Your task to perform on an android device: open app "Chime – Mobile Banking" (install if not already installed) and go to login screen Image 0: 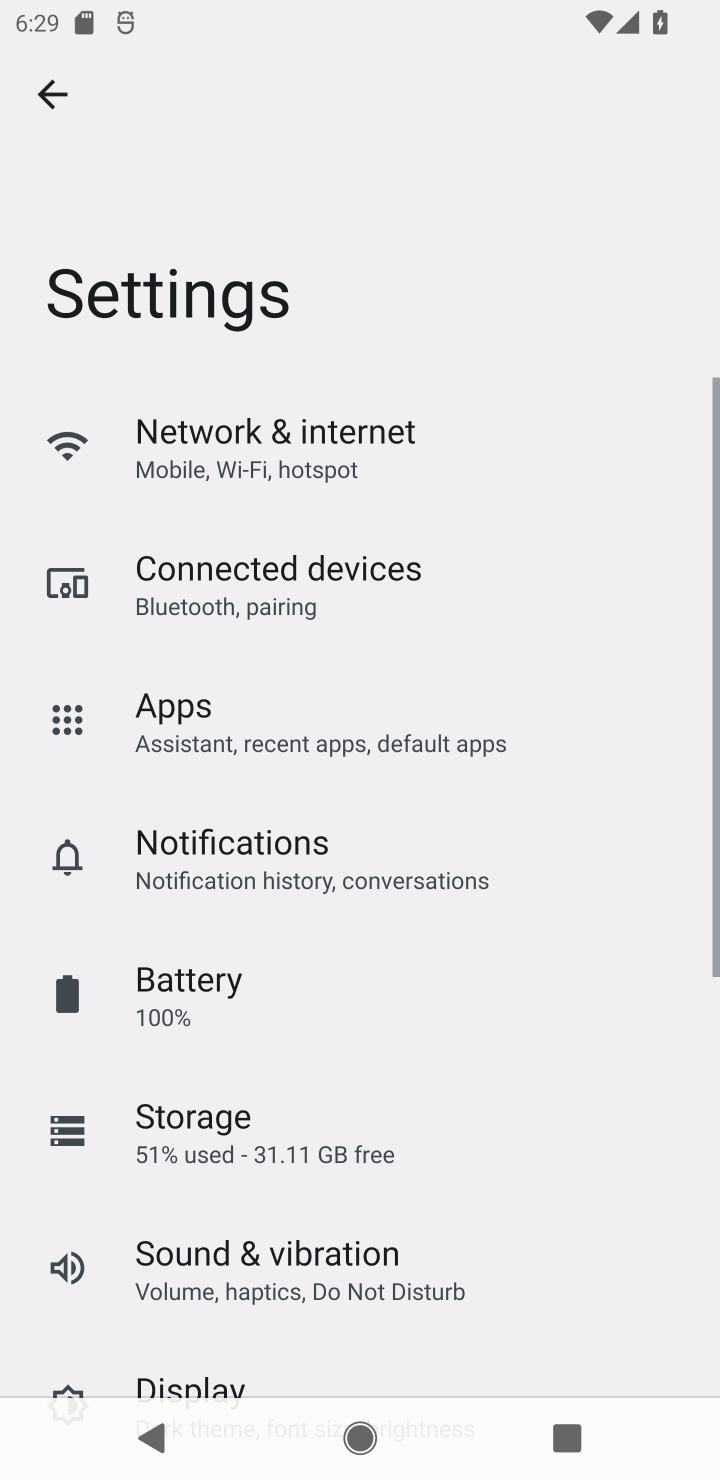
Step 0: press back button
Your task to perform on an android device: open app "Chime – Mobile Banking" (install if not already installed) and go to login screen Image 1: 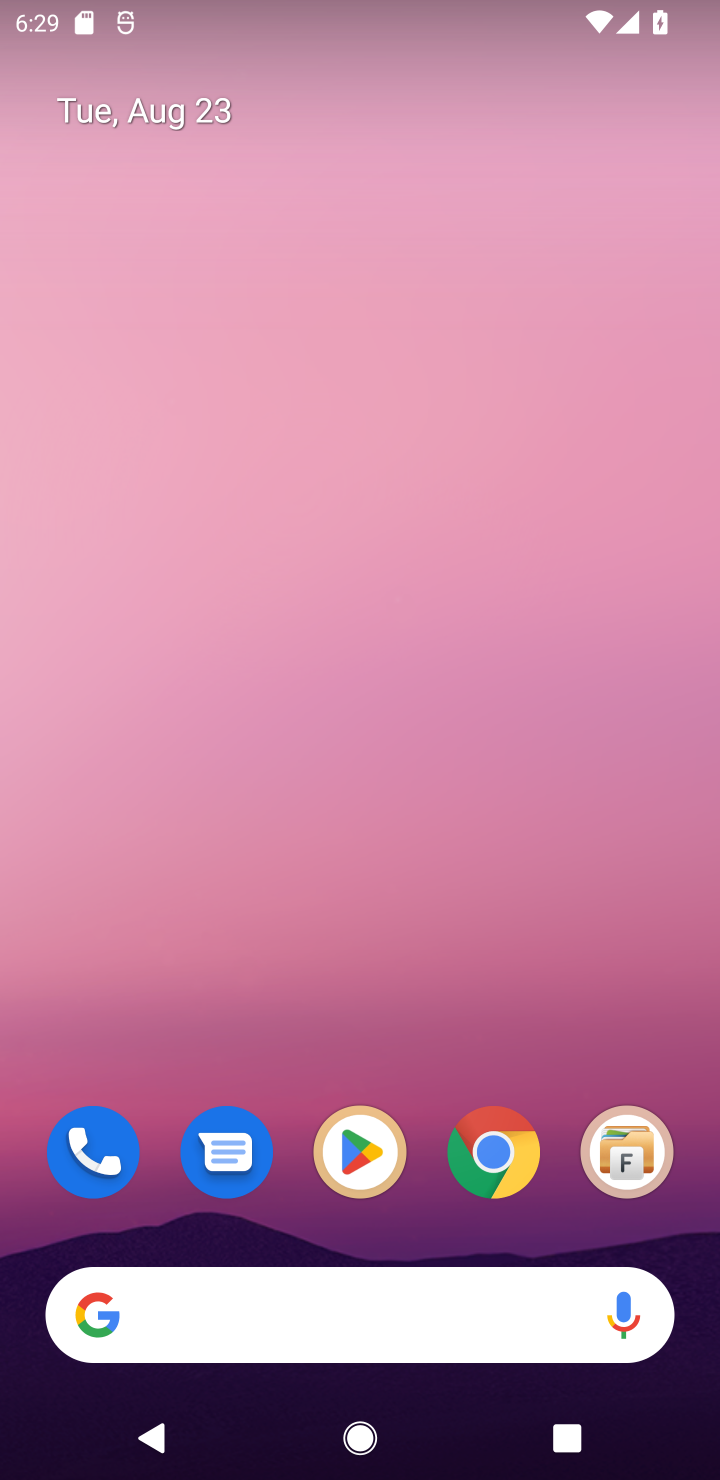
Step 1: click (367, 1147)
Your task to perform on an android device: open app "Chime – Mobile Banking" (install if not already installed) and go to login screen Image 2: 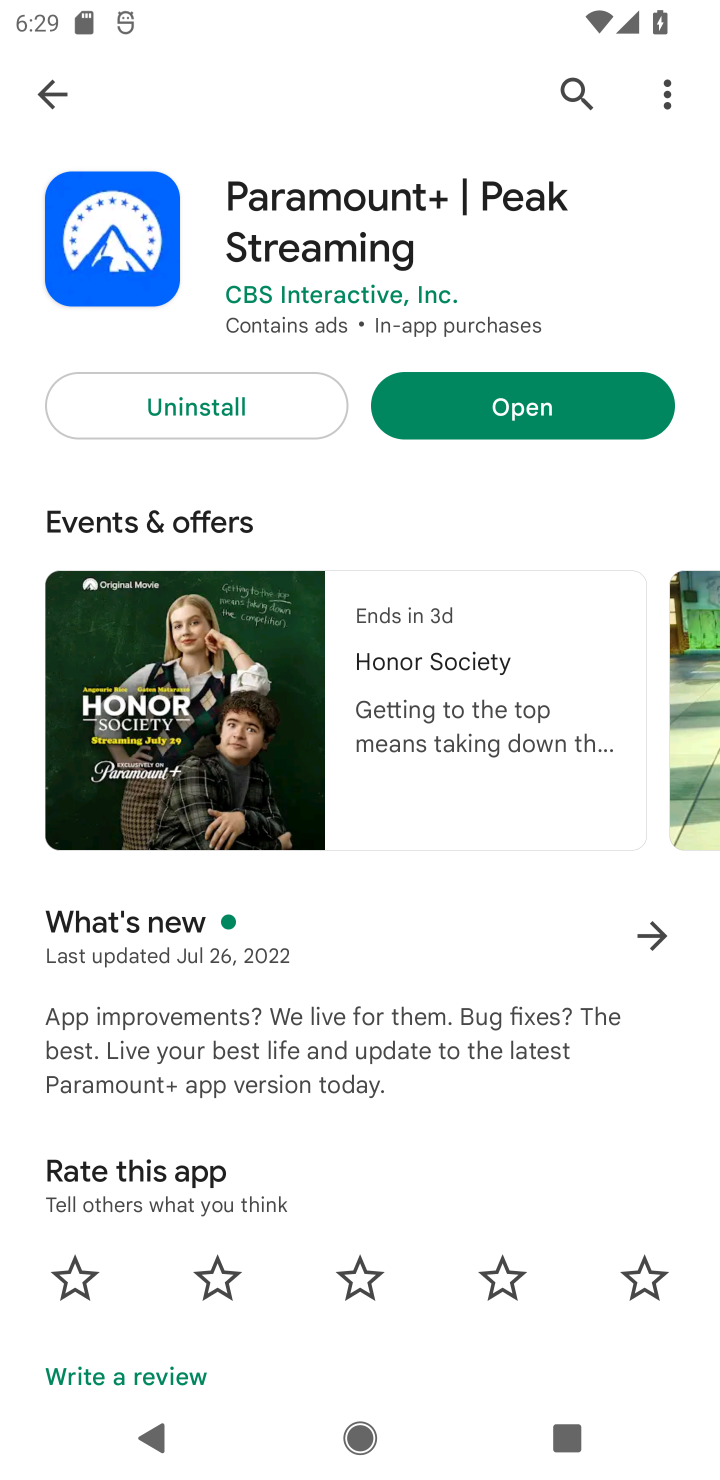
Step 2: click (580, 80)
Your task to perform on an android device: open app "Chime – Mobile Banking" (install if not already installed) and go to login screen Image 3: 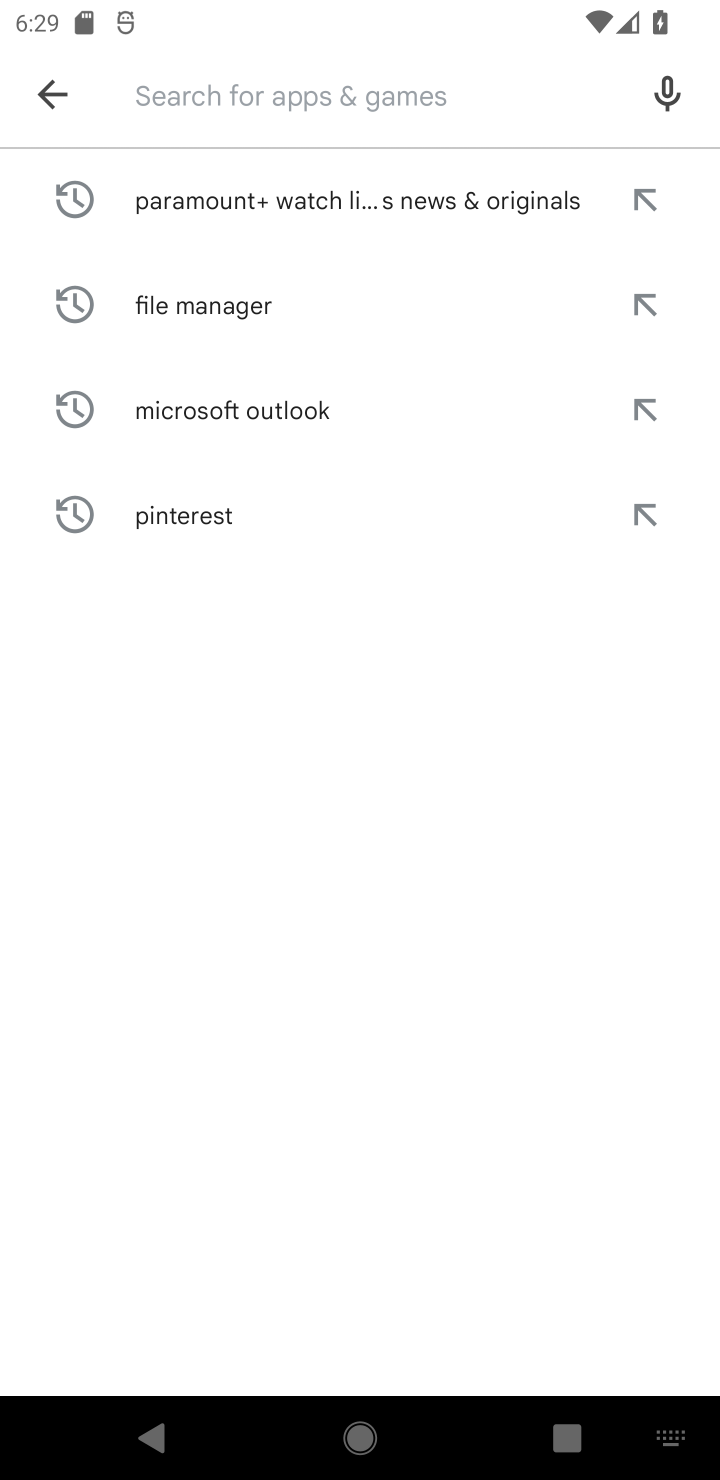
Step 3: click (296, 63)
Your task to perform on an android device: open app "Chime – Mobile Banking" (install if not already installed) and go to login screen Image 4: 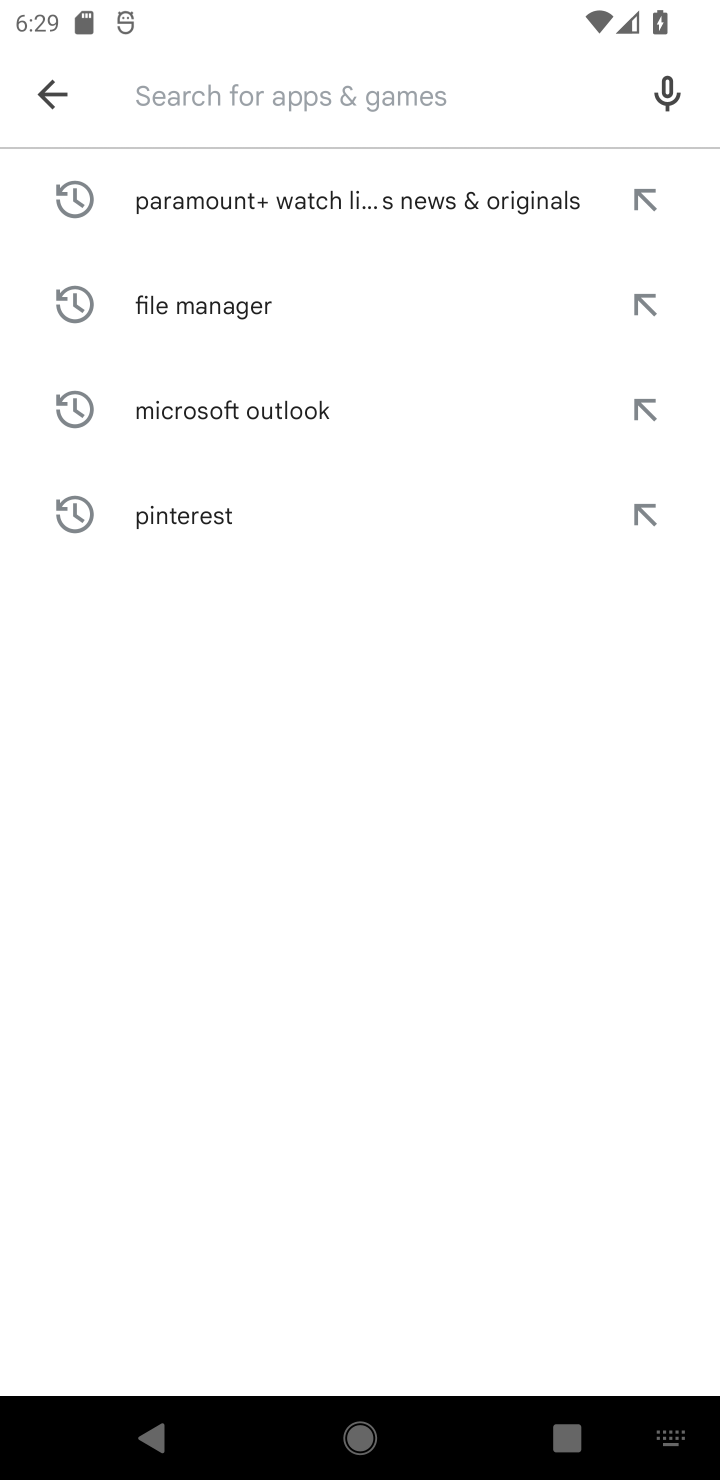
Step 4: type "Chime"
Your task to perform on an android device: open app "Chime – Mobile Banking" (install if not already installed) and go to login screen Image 5: 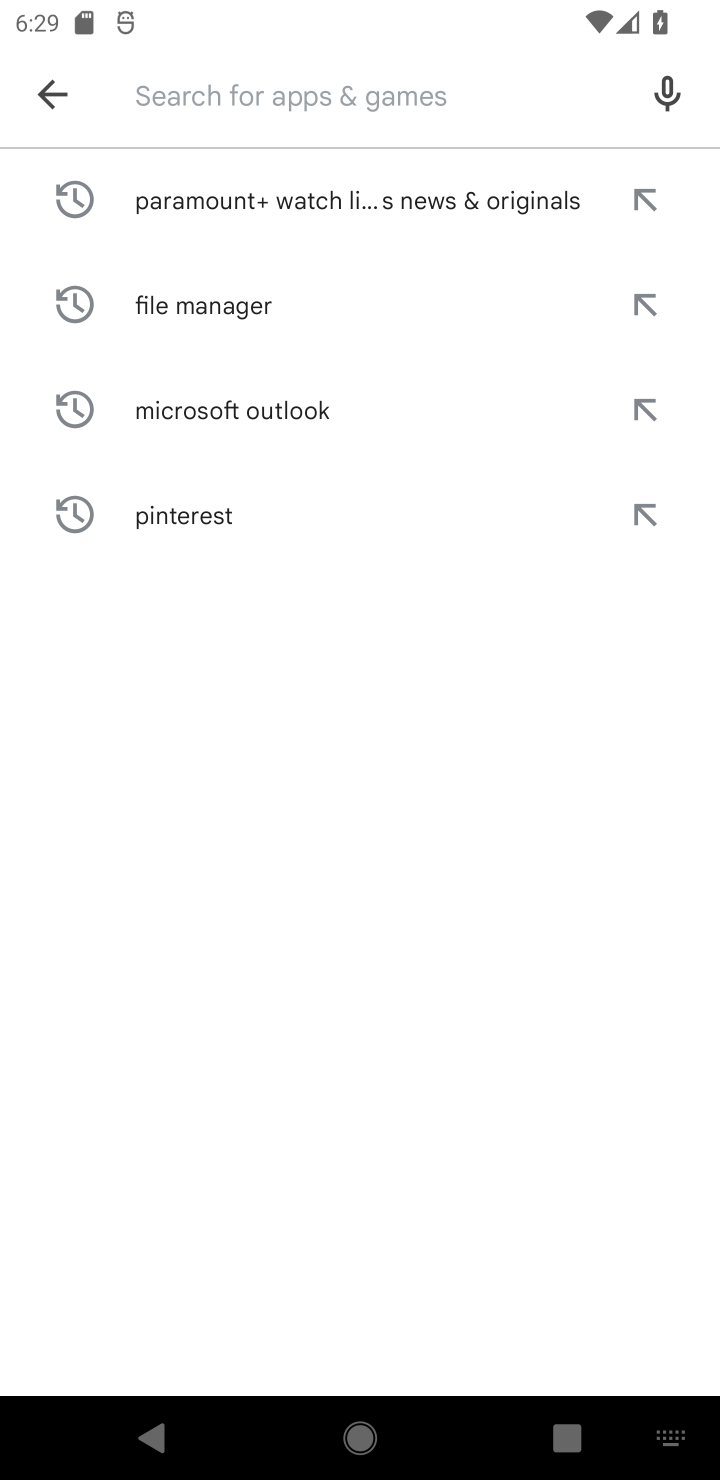
Step 5: click (607, 1067)
Your task to perform on an android device: open app "Chime – Mobile Banking" (install if not already installed) and go to login screen Image 6: 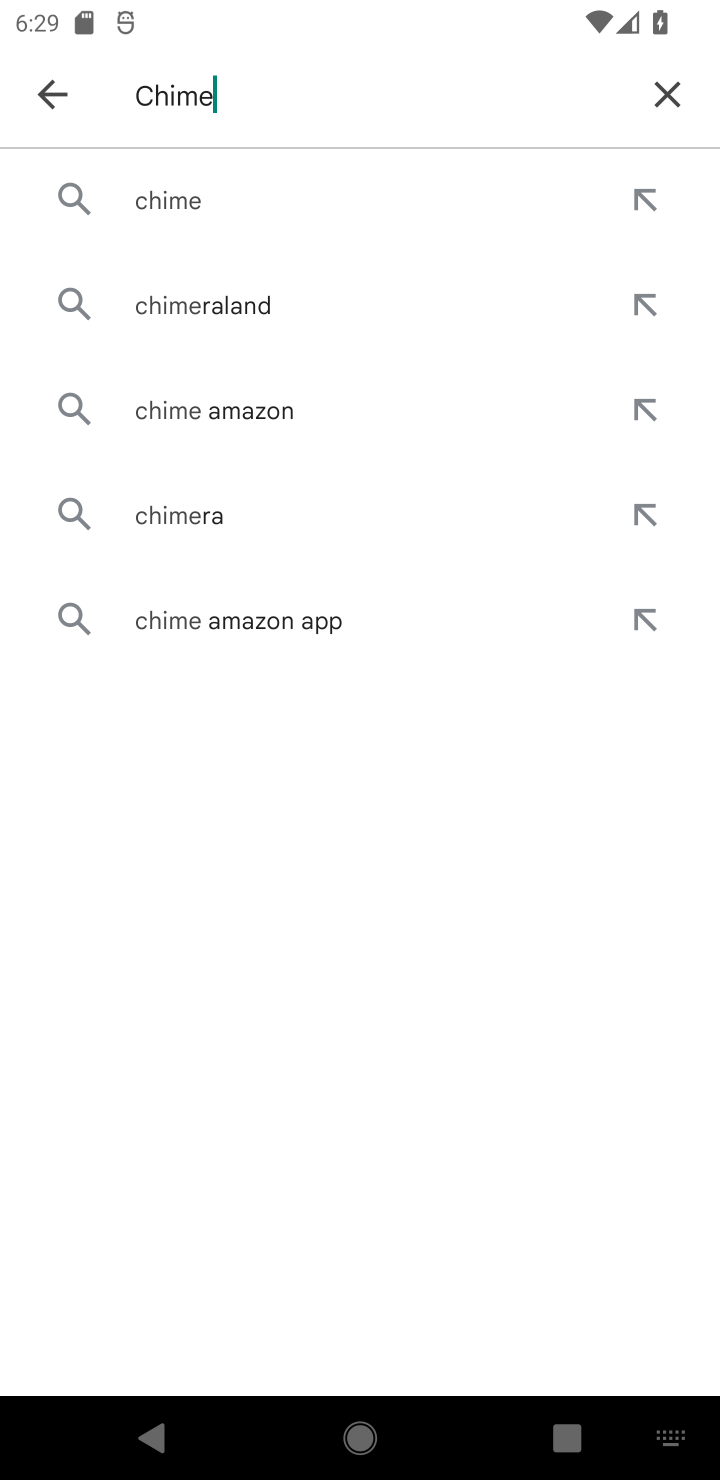
Step 6: click (212, 193)
Your task to perform on an android device: open app "Chime – Mobile Banking" (install if not already installed) and go to login screen Image 7: 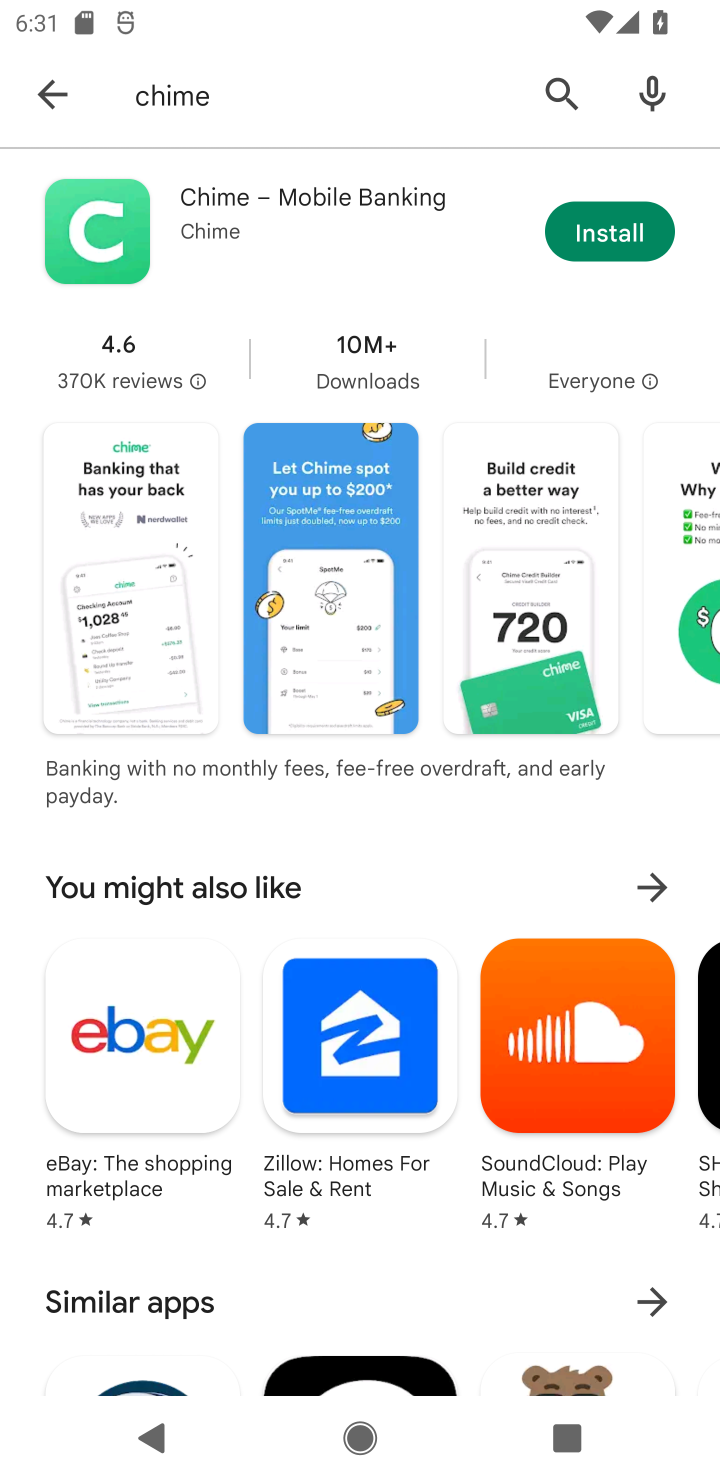
Step 7: click (594, 232)
Your task to perform on an android device: open app "Chime – Mobile Banking" (install if not already installed) and go to login screen Image 8: 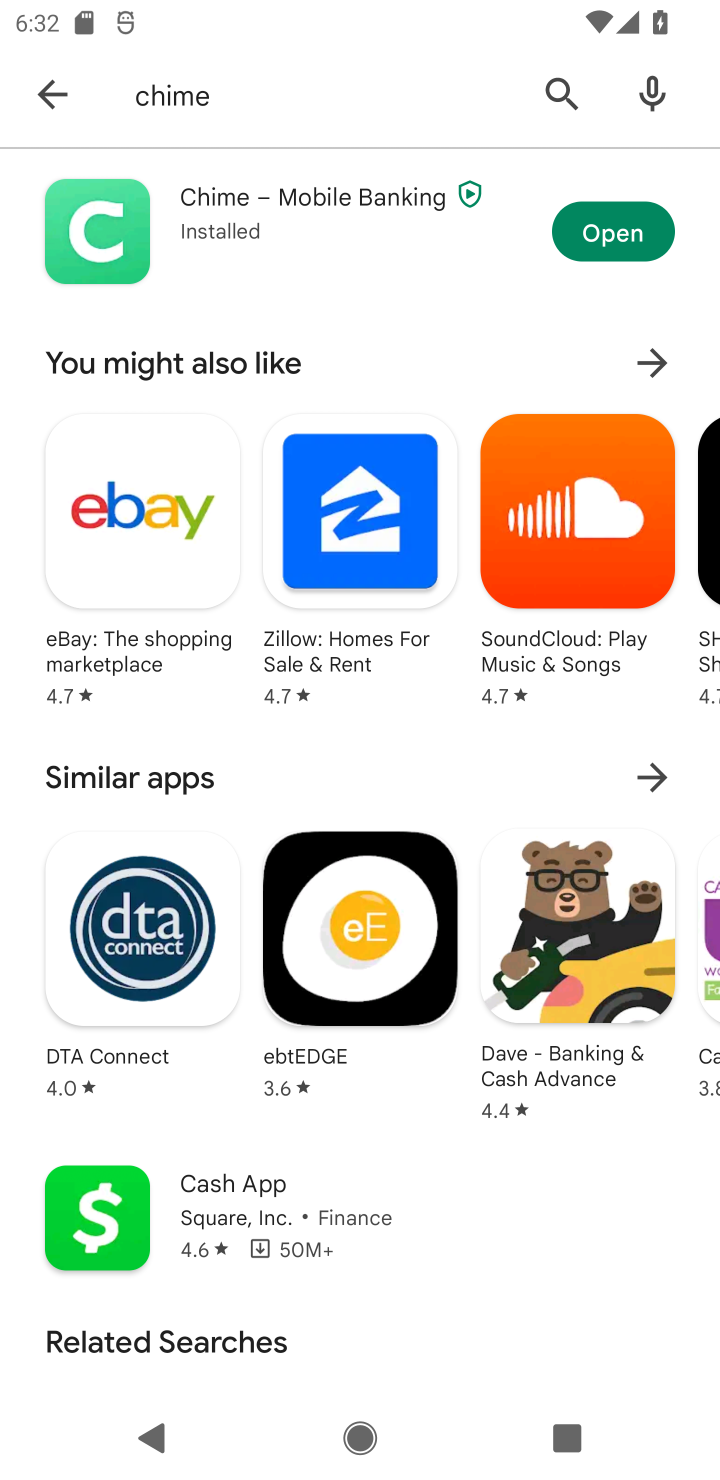
Step 8: click (590, 246)
Your task to perform on an android device: open app "Chime – Mobile Banking" (install if not already installed) and go to login screen Image 9: 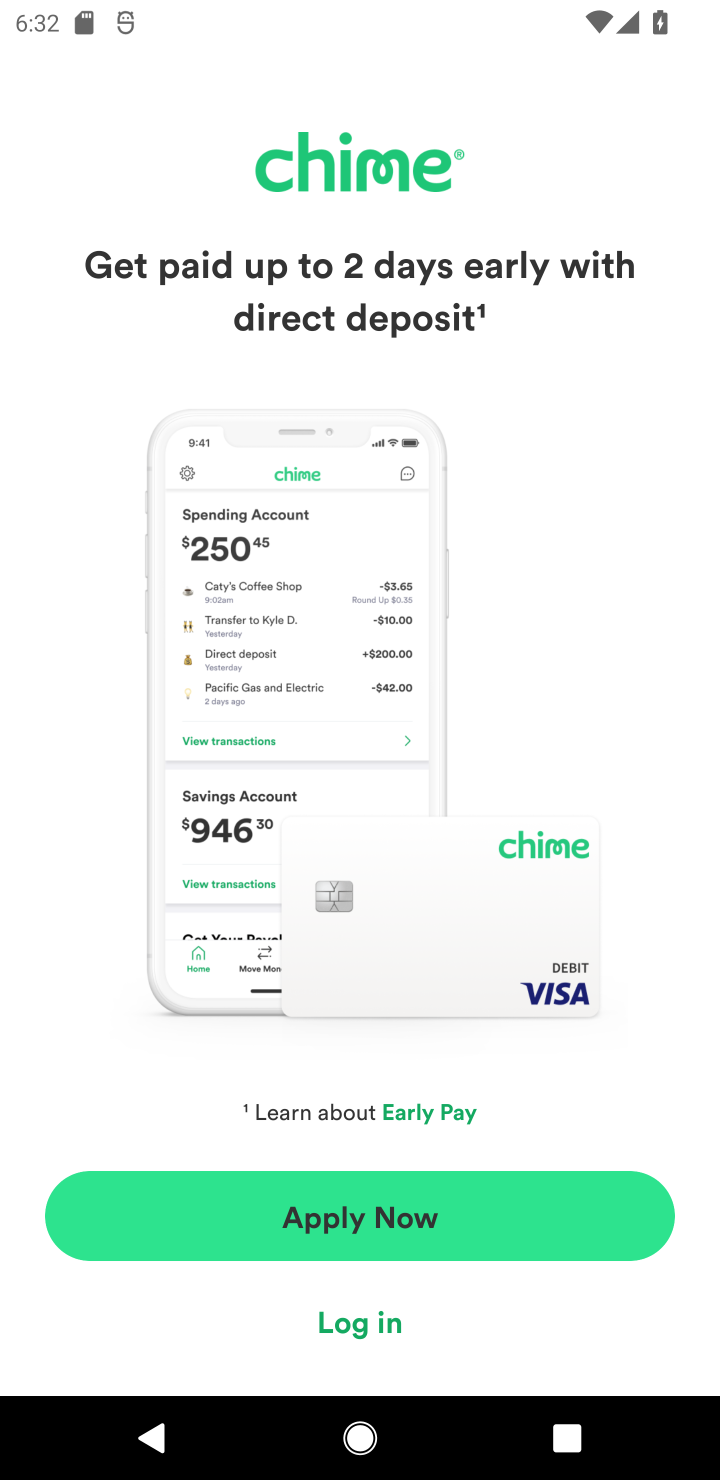
Step 9: click (309, 1323)
Your task to perform on an android device: open app "Chime – Mobile Banking" (install if not already installed) and go to login screen Image 10: 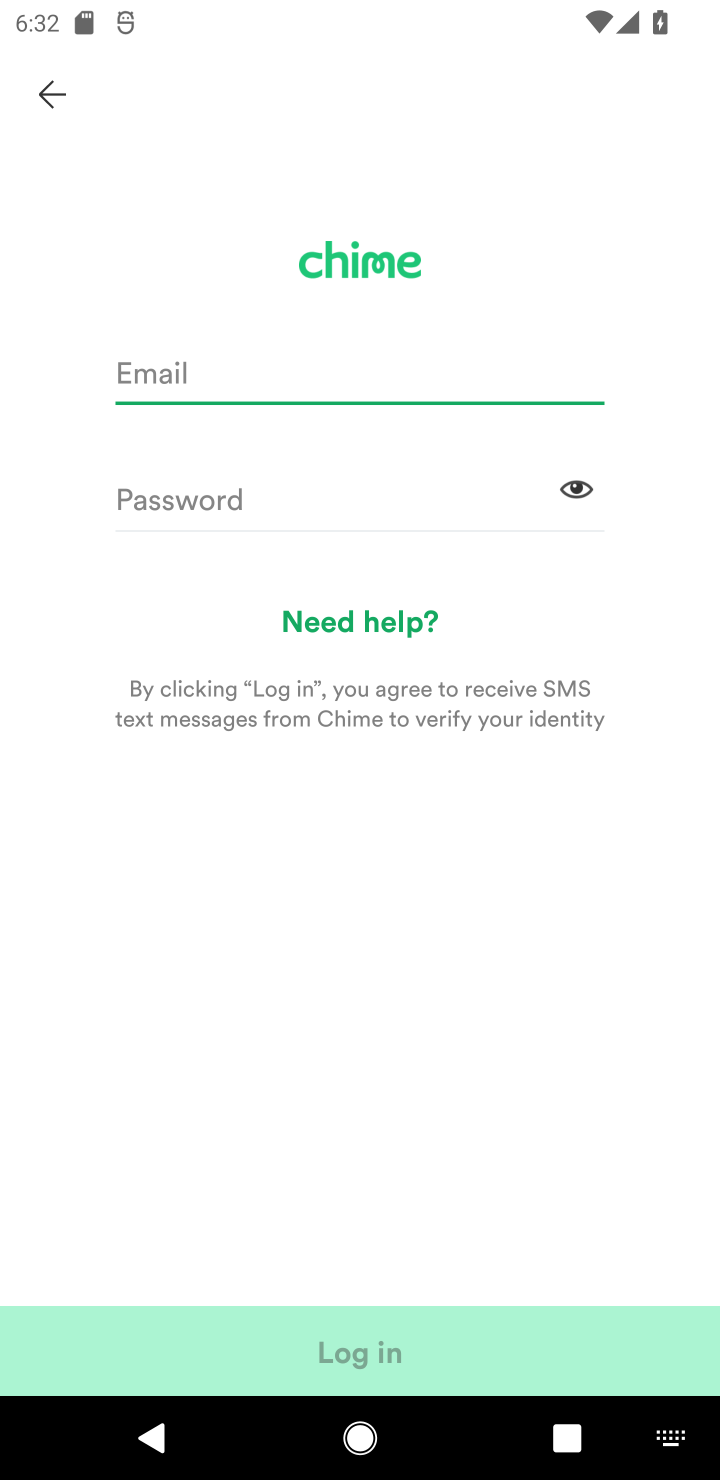
Step 10: task complete